Your task to perform on an android device: change alarm snooze length Image 0: 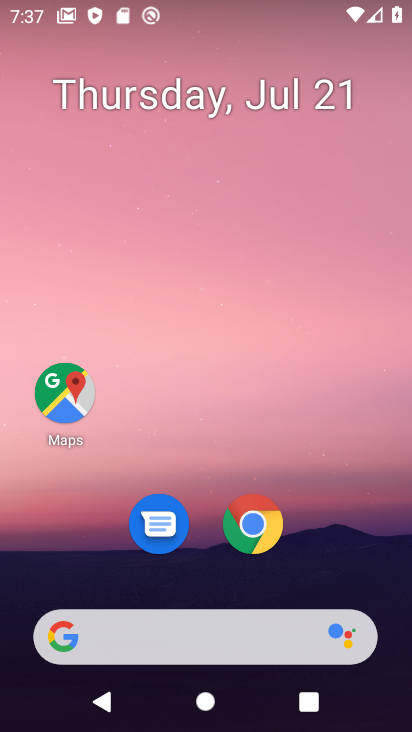
Step 0: press home button
Your task to perform on an android device: change alarm snooze length Image 1: 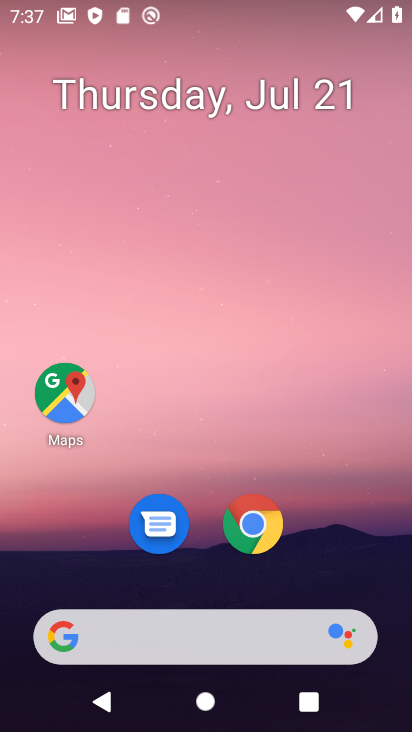
Step 1: drag from (199, 633) to (311, 102)
Your task to perform on an android device: change alarm snooze length Image 2: 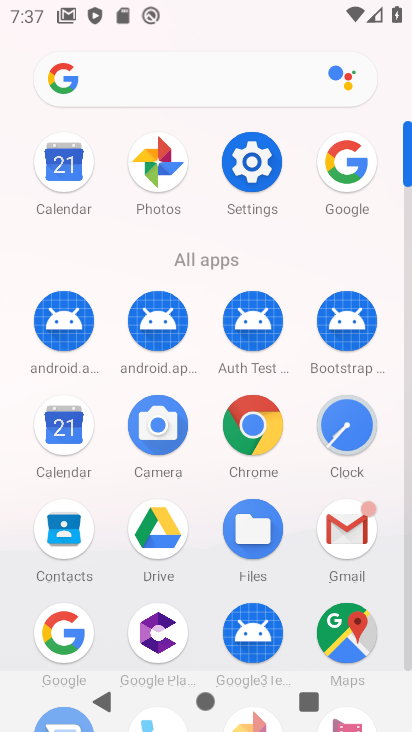
Step 2: click (345, 427)
Your task to perform on an android device: change alarm snooze length Image 3: 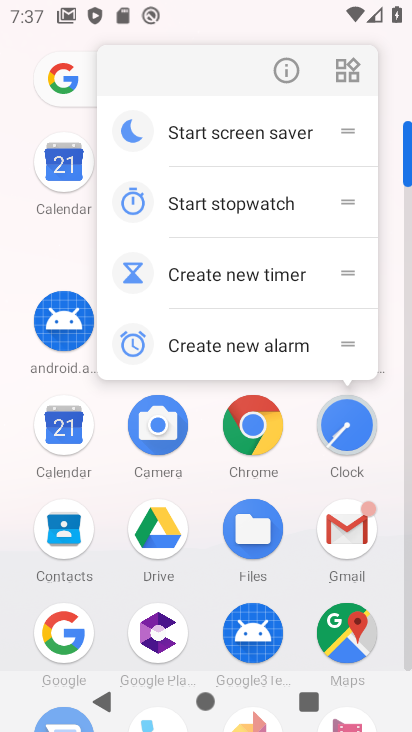
Step 3: click (346, 435)
Your task to perform on an android device: change alarm snooze length Image 4: 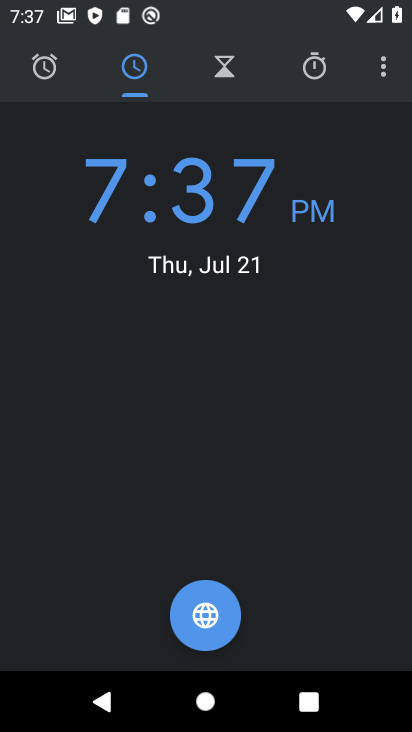
Step 4: click (382, 76)
Your task to perform on an android device: change alarm snooze length Image 5: 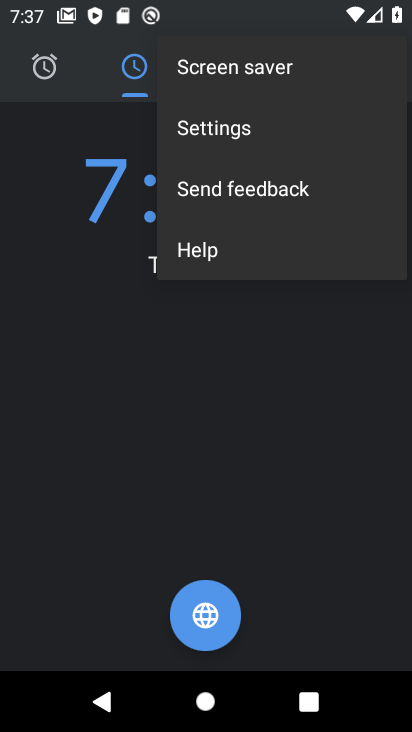
Step 5: click (267, 138)
Your task to perform on an android device: change alarm snooze length Image 6: 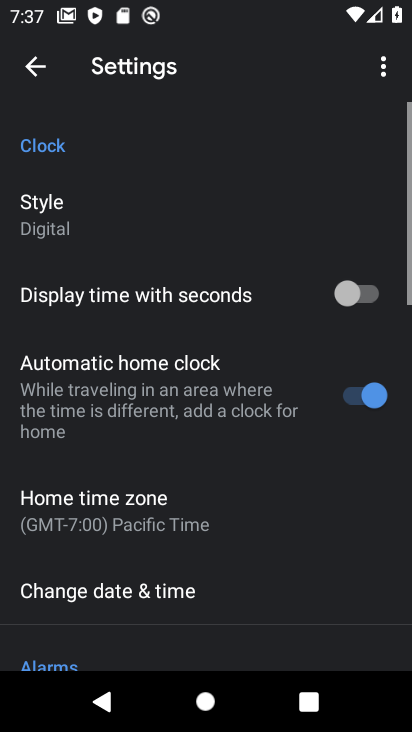
Step 6: drag from (262, 543) to (318, 138)
Your task to perform on an android device: change alarm snooze length Image 7: 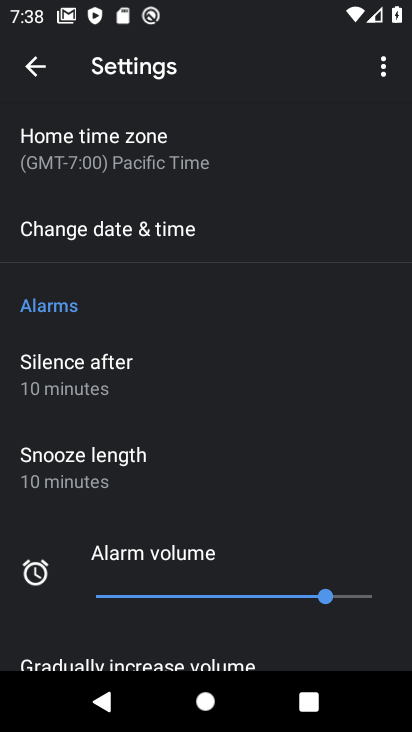
Step 7: click (111, 474)
Your task to perform on an android device: change alarm snooze length Image 8: 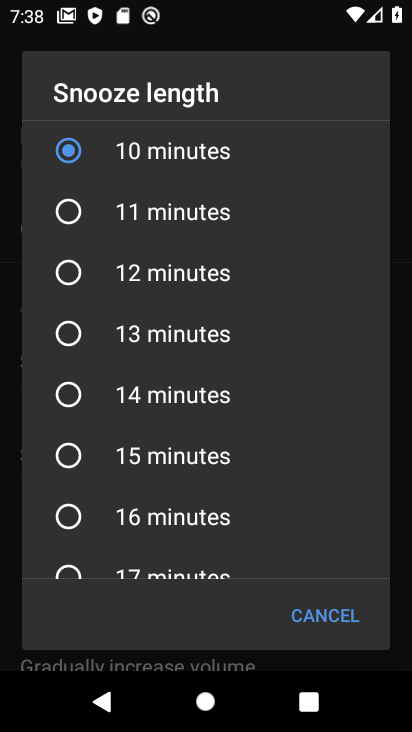
Step 8: click (73, 448)
Your task to perform on an android device: change alarm snooze length Image 9: 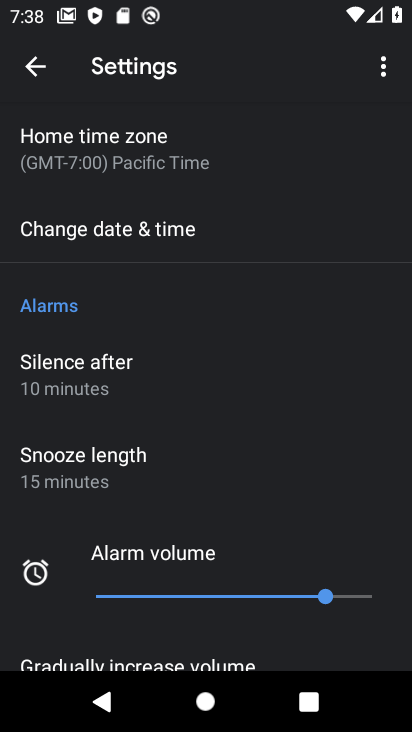
Step 9: task complete